Your task to perform on an android device: Turn off the flashlight Image 0: 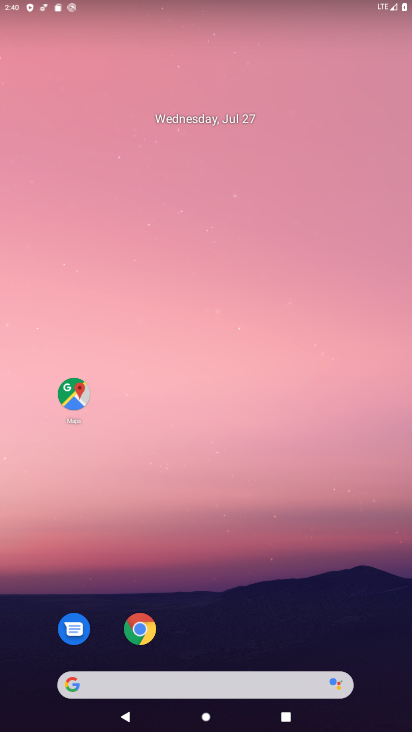
Step 0: click (245, 314)
Your task to perform on an android device: Turn off the flashlight Image 1: 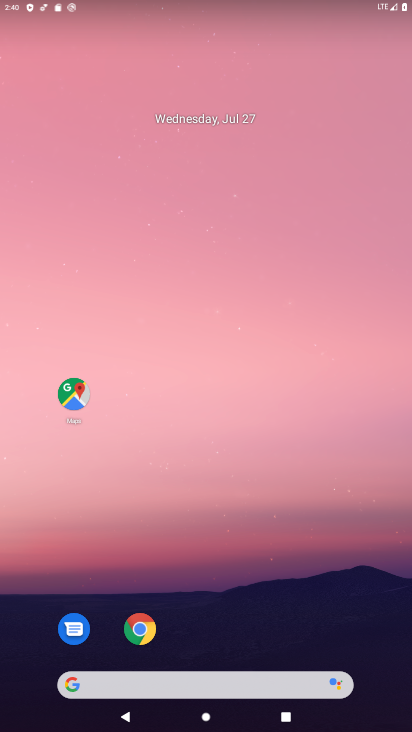
Step 1: drag from (209, 363) to (210, 56)
Your task to perform on an android device: Turn off the flashlight Image 2: 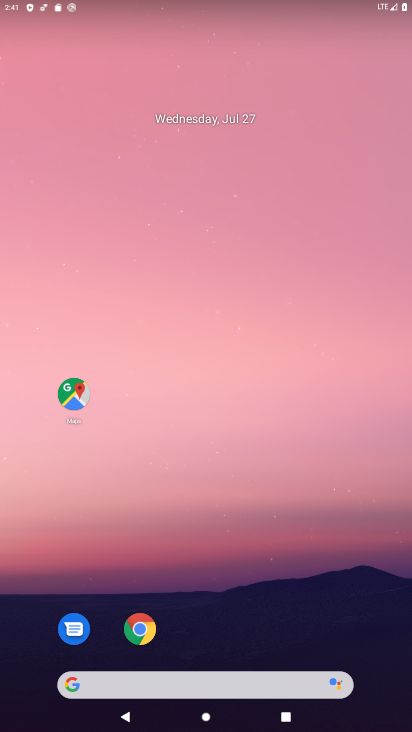
Step 2: drag from (270, 626) to (208, 3)
Your task to perform on an android device: Turn off the flashlight Image 3: 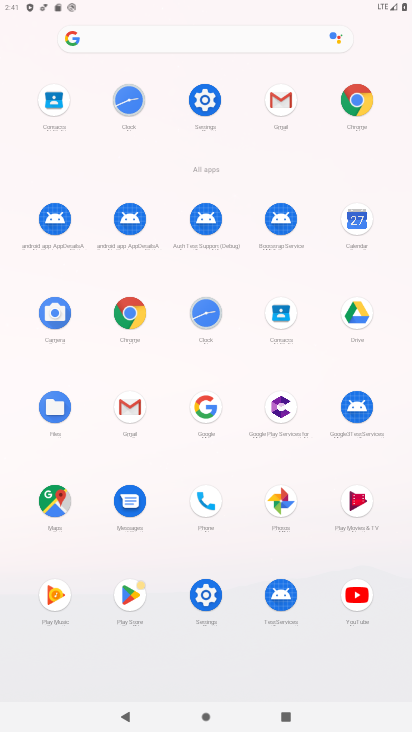
Step 3: click (204, 102)
Your task to perform on an android device: Turn off the flashlight Image 4: 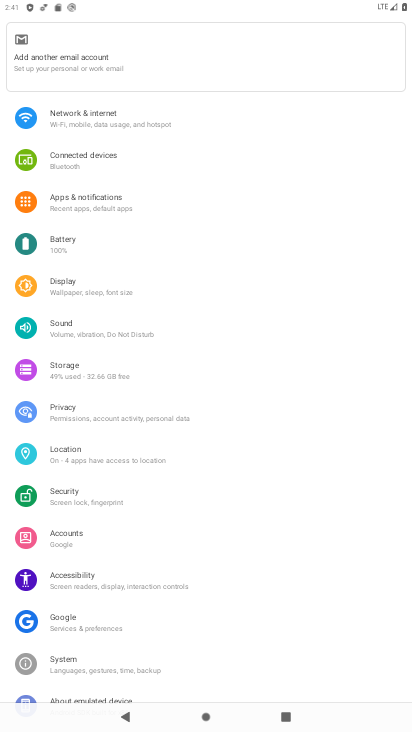
Step 4: task complete